Your task to perform on an android device: turn on notifications settings in the gmail app Image 0: 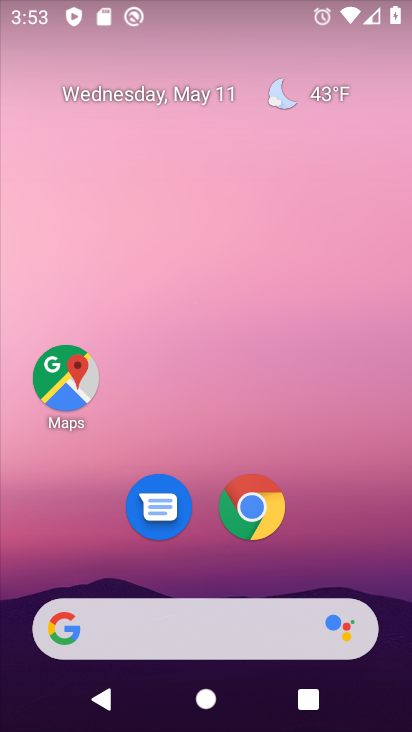
Step 0: drag from (397, 637) to (314, 3)
Your task to perform on an android device: turn on notifications settings in the gmail app Image 1: 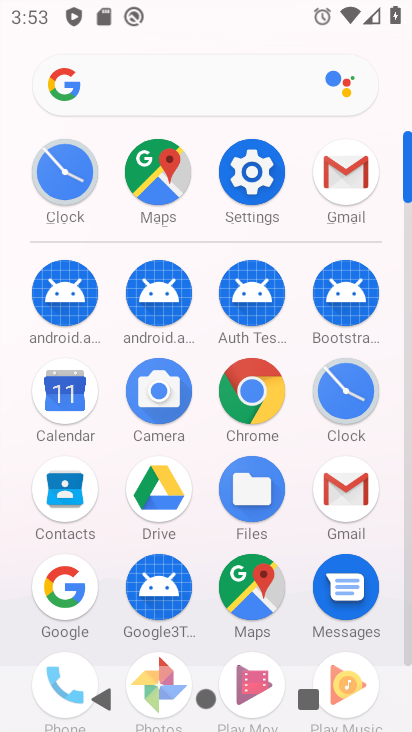
Step 1: click (409, 659)
Your task to perform on an android device: turn on notifications settings in the gmail app Image 2: 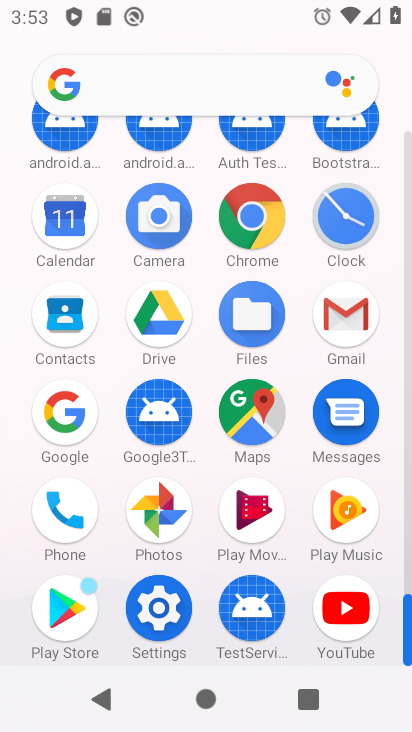
Step 2: click (344, 312)
Your task to perform on an android device: turn on notifications settings in the gmail app Image 3: 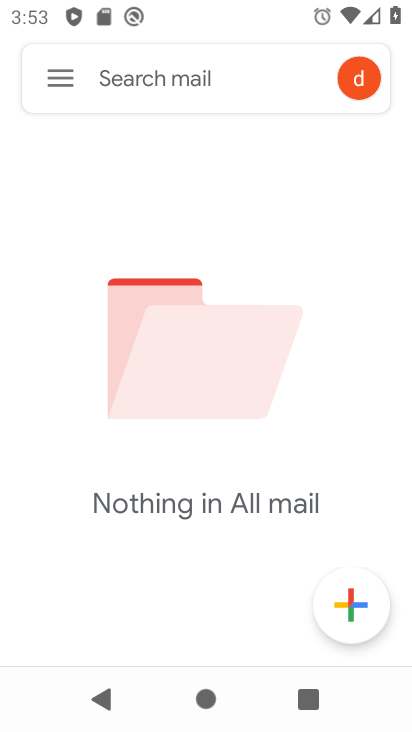
Step 3: click (64, 79)
Your task to perform on an android device: turn on notifications settings in the gmail app Image 4: 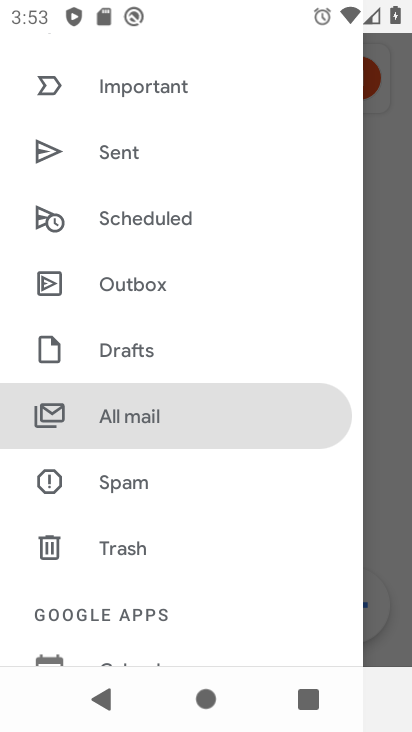
Step 4: drag from (238, 475) to (257, 112)
Your task to perform on an android device: turn on notifications settings in the gmail app Image 5: 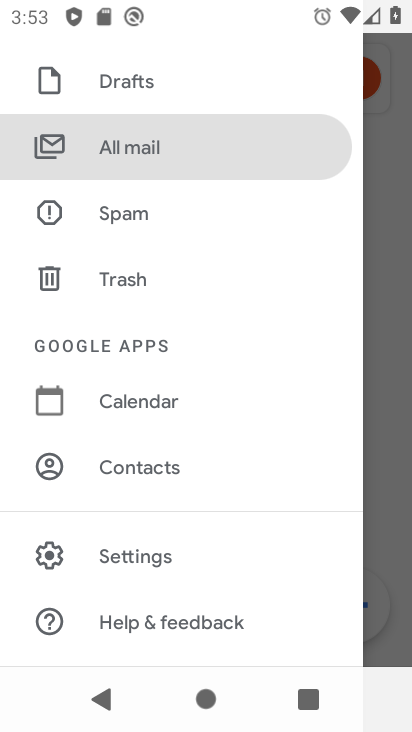
Step 5: click (136, 551)
Your task to perform on an android device: turn on notifications settings in the gmail app Image 6: 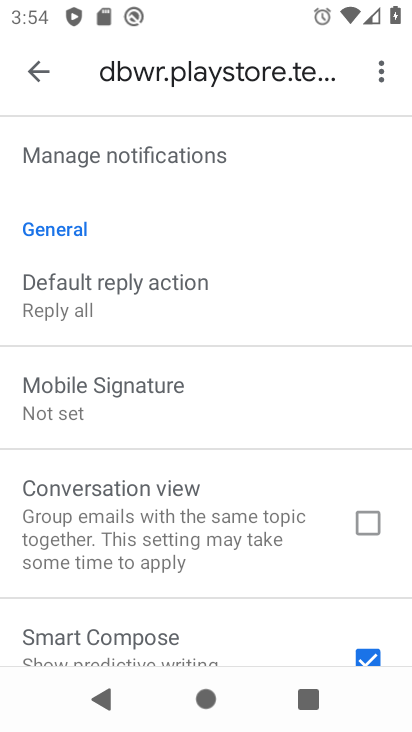
Step 6: drag from (298, 338) to (271, 538)
Your task to perform on an android device: turn on notifications settings in the gmail app Image 7: 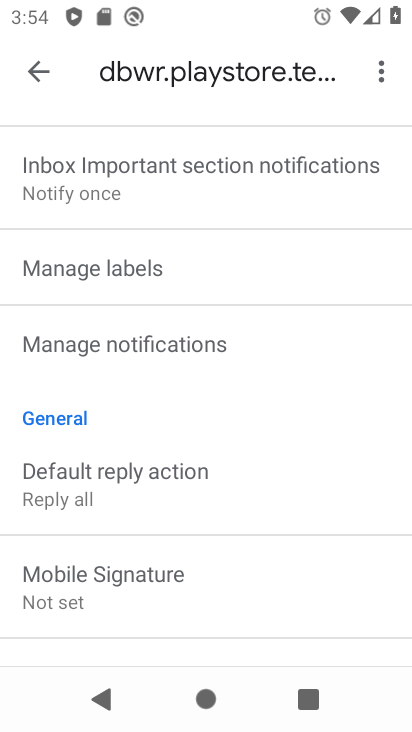
Step 7: click (104, 340)
Your task to perform on an android device: turn on notifications settings in the gmail app Image 8: 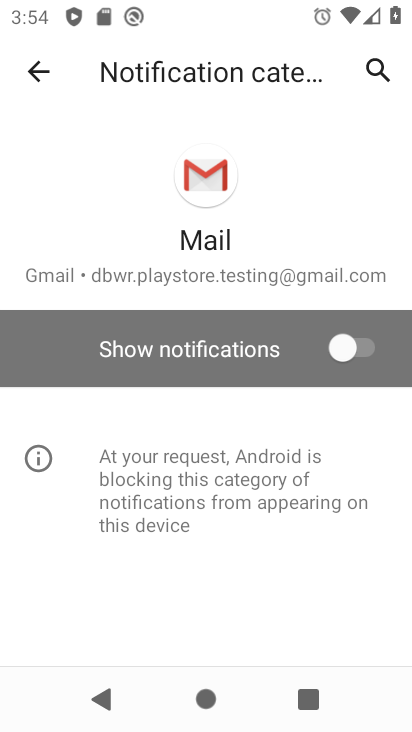
Step 8: click (358, 345)
Your task to perform on an android device: turn on notifications settings in the gmail app Image 9: 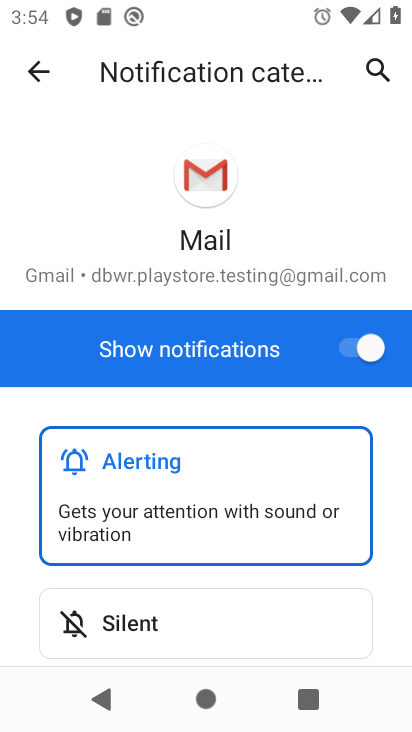
Step 9: task complete